Your task to perform on an android device: Turn off the flashlight Image 0: 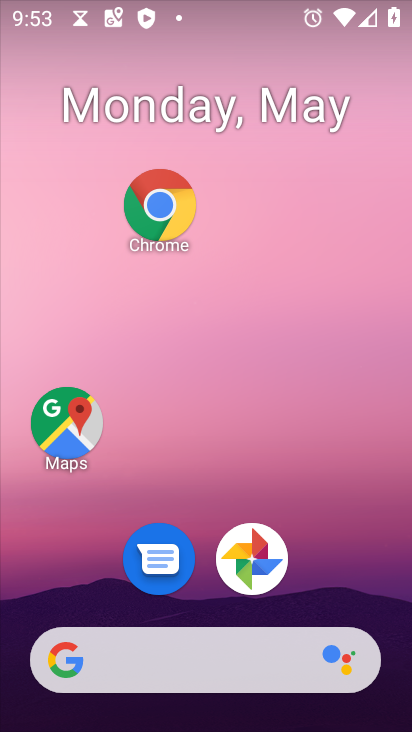
Step 0: drag from (246, 709) to (200, 129)
Your task to perform on an android device: Turn off the flashlight Image 1: 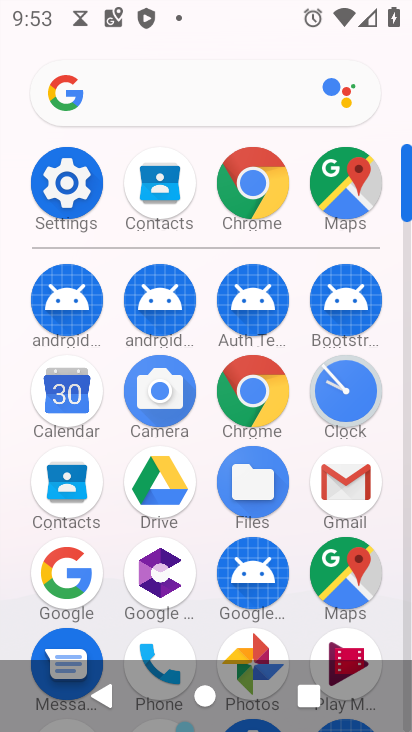
Step 1: task complete